Your task to perform on an android device: allow notifications from all sites in the chrome app Image 0: 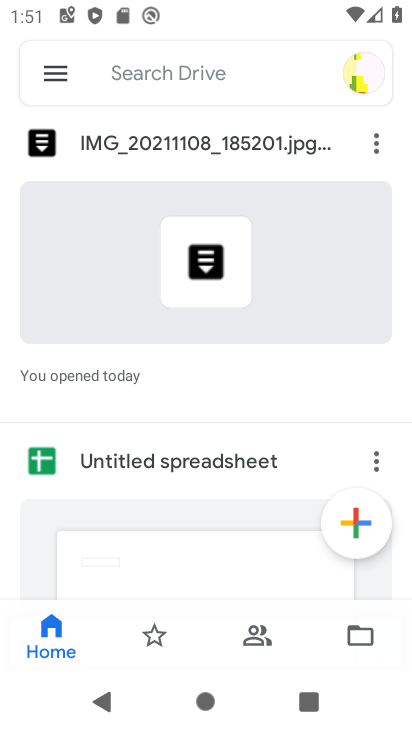
Step 0: press home button
Your task to perform on an android device: allow notifications from all sites in the chrome app Image 1: 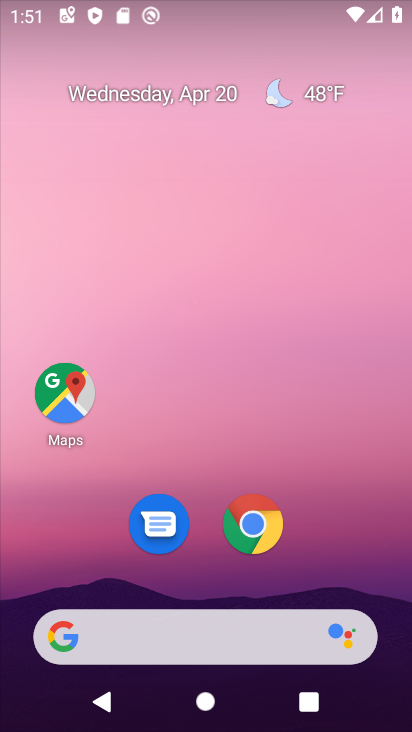
Step 1: click (256, 521)
Your task to perform on an android device: allow notifications from all sites in the chrome app Image 2: 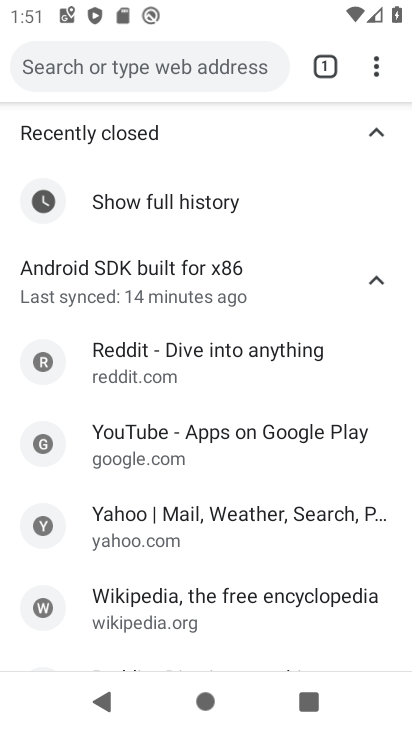
Step 2: click (374, 65)
Your task to perform on an android device: allow notifications from all sites in the chrome app Image 3: 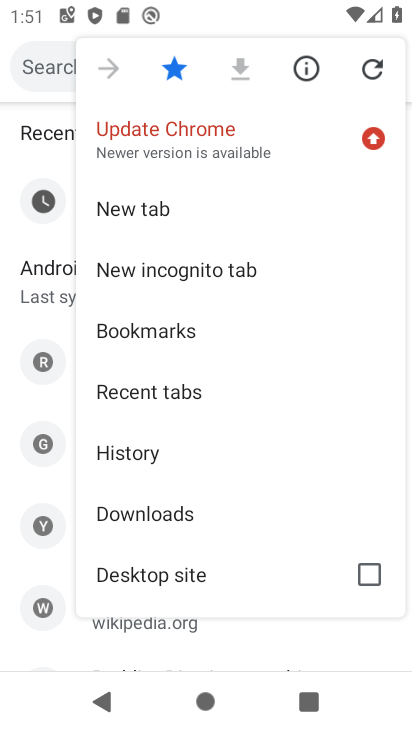
Step 3: drag from (230, 528) to (227, 240)
Your task to perform on an android device: allow notifications from all sites in the chrome app Image 4: 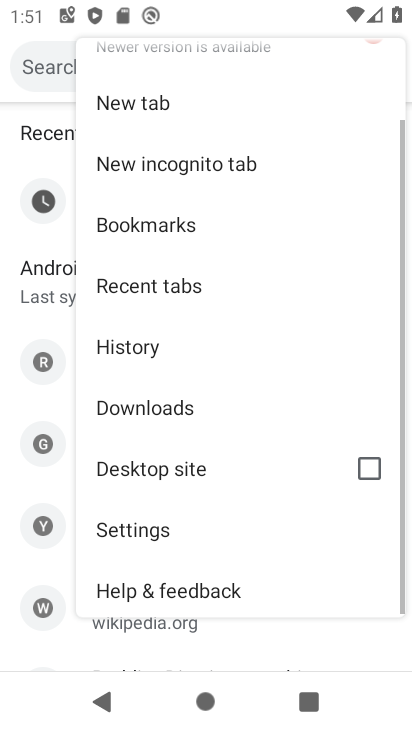
Step 4: click (154, 526)
Your task to perform on an android device: allow notifications from all sites in the chrome app Image 5: 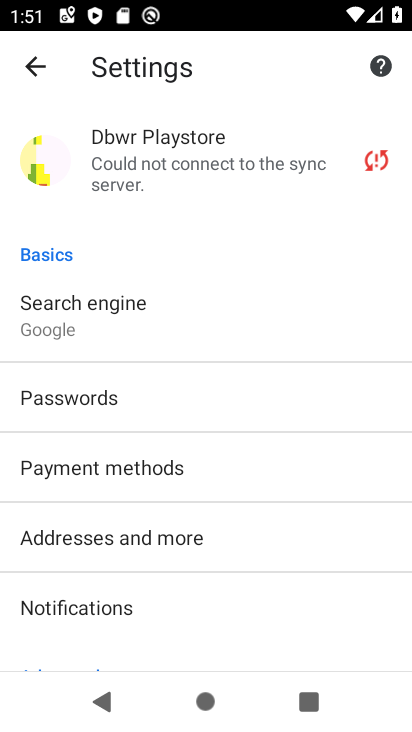
Step 5: click (238, 613)
Your task to perform on an android device: allow notifications from all sites in the chrome app Image 6: 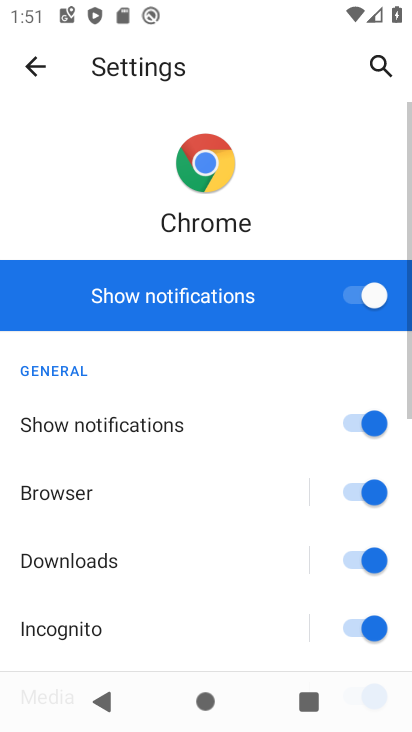
Step 6: task complete